Your task to perform on an android device: empty trash in google photos Image 0: 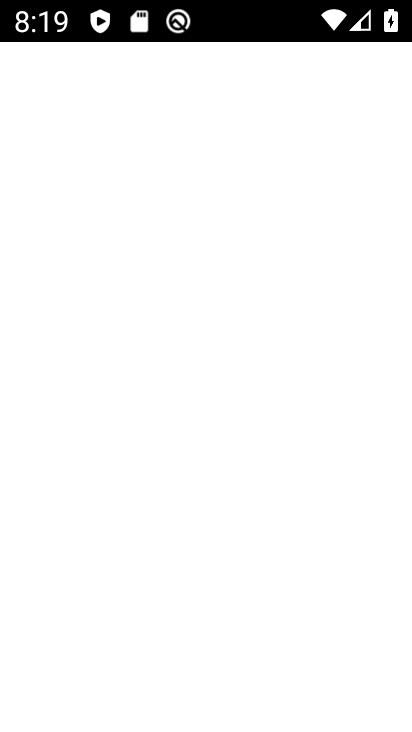
Step 0: press home button
Your task to perform on an android device: empty trash in google photos Image 1: 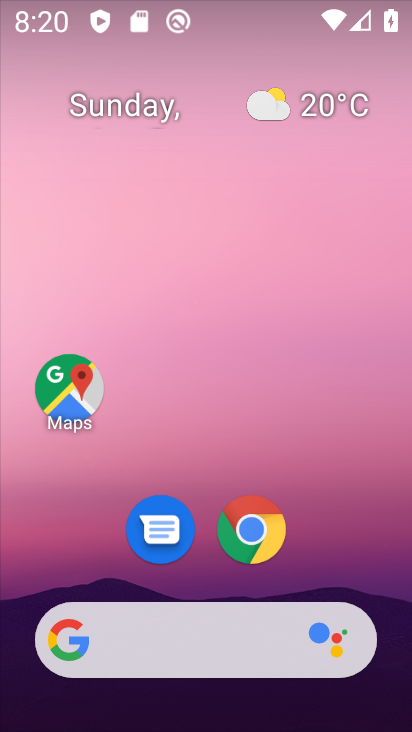
Step 1: drag from (204, 558) to (250, 17)
Your task to perform on an android device: empty trash in google photos Image 2: 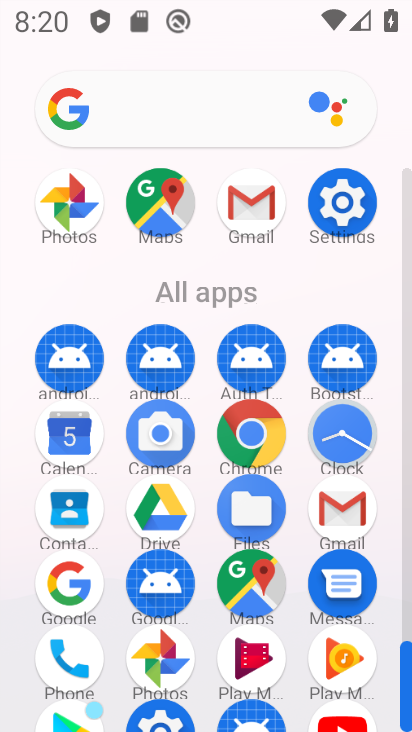
Step 2: click (156, 648)
Your task to perform on an android device: empty trash in google photos Image 3: 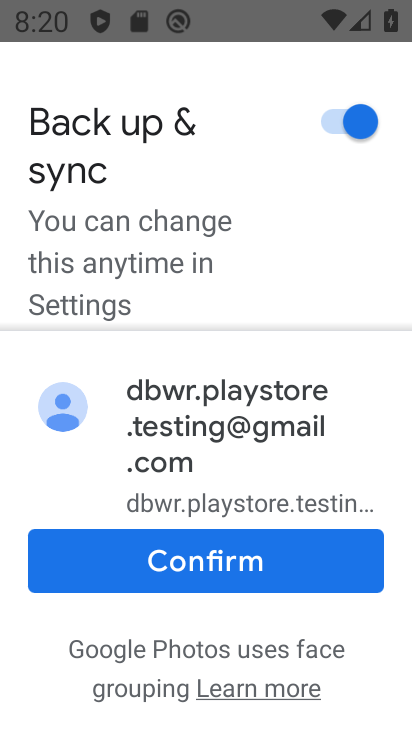
Step 3: click (210, 558)
Your task to perform on an android device: empty trash in google photos Image 4: 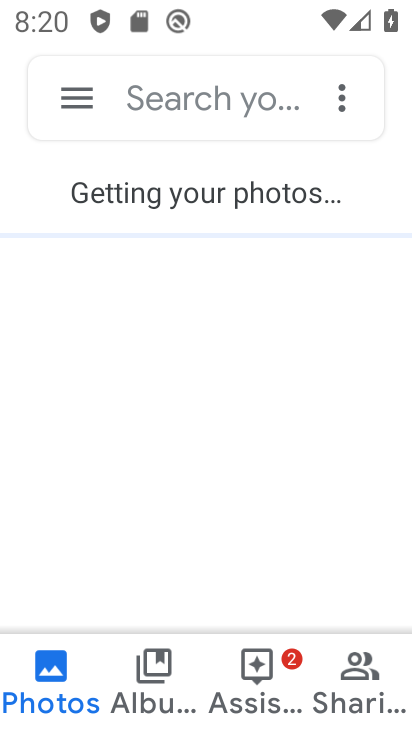
Step 4: click (343, 84)
Your task to perform on an android device: empty trash in google photos Image 5: 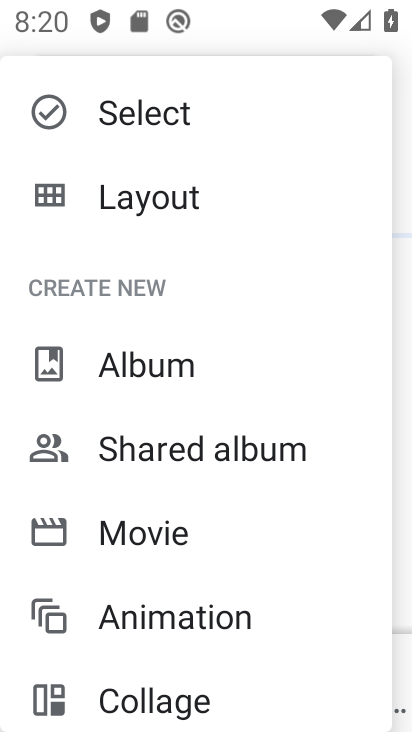
Step 5: drag from (190, 652) to (223, 207)
Your task to perform on an android device: empty trash in google photos Image 6: 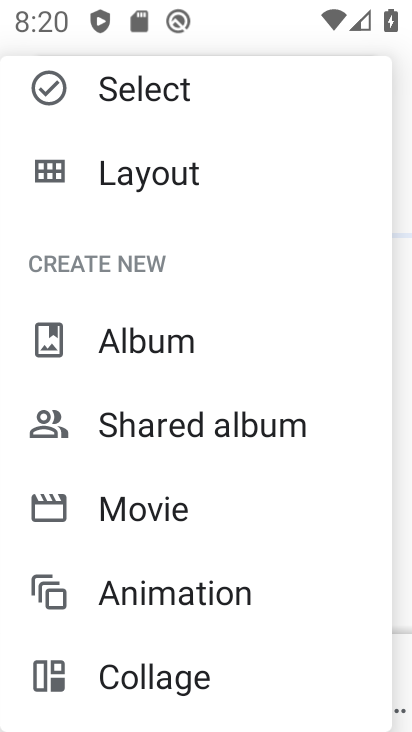
Step 6: press back button
Your task to perform on an android device: empty trash in google photos Image 7: 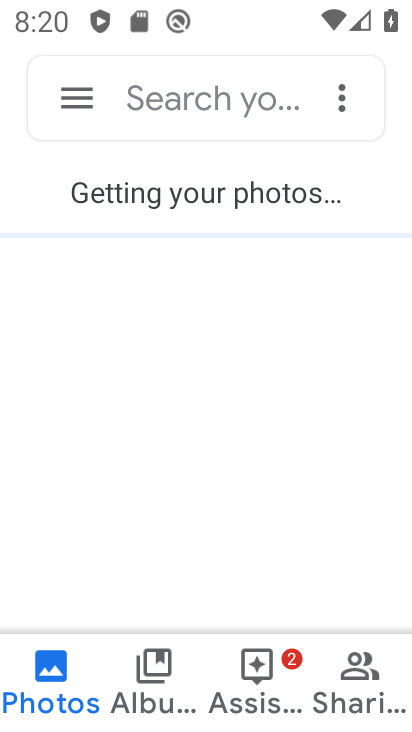
Step 7: click (65, 89)
Your task to perform on an android device: empty trash in google photos Image 8: 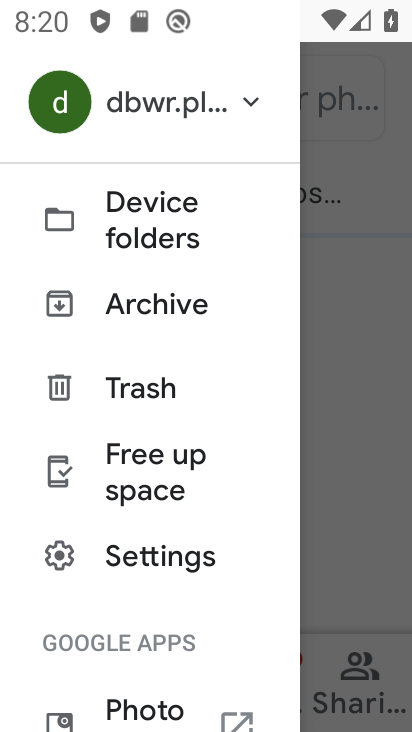
Step 8: click (92, 381)
Your task to perform on an android device: empty trash in google photos Image 9: 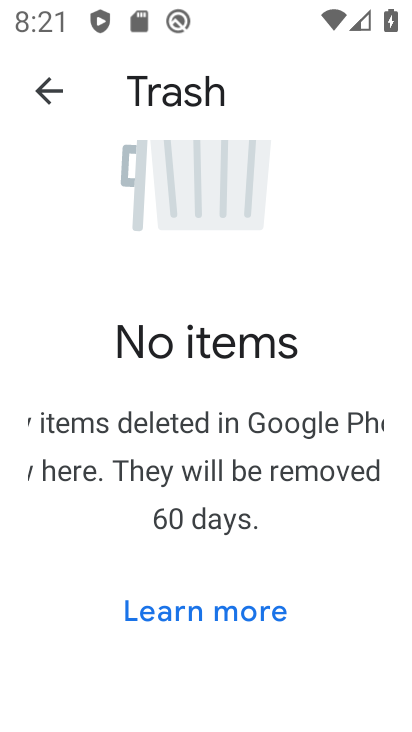
Step 9: task complete